Your task to perform on an android device: see sites visited before in the chrome app Image 0: 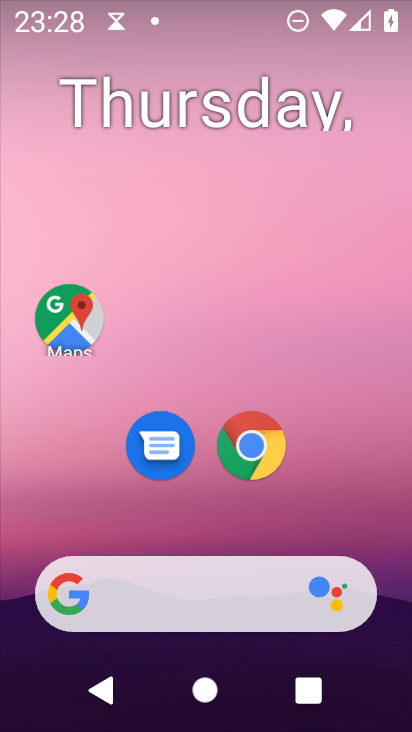
Step 0: click (245, 442)
Your task to perform on an android device: see sites visited before in the chrome app Image 1: 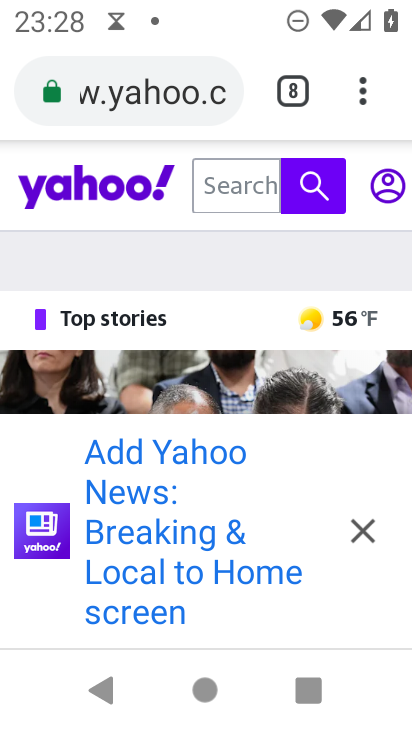
Step 1: click (364, 96)
Your task to perform on an android device: see sites visited before in the chrome app Image 2: 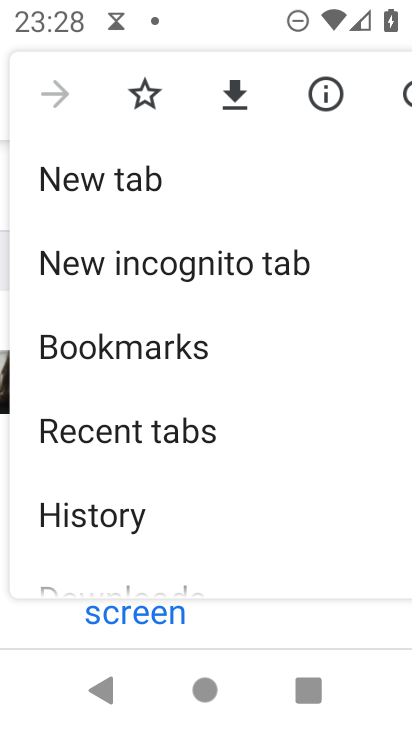
Step 2: drag from (148, 546) to (131, 139)
Your task to perform on an android device: see sites visited before in the chrome app Image 3: 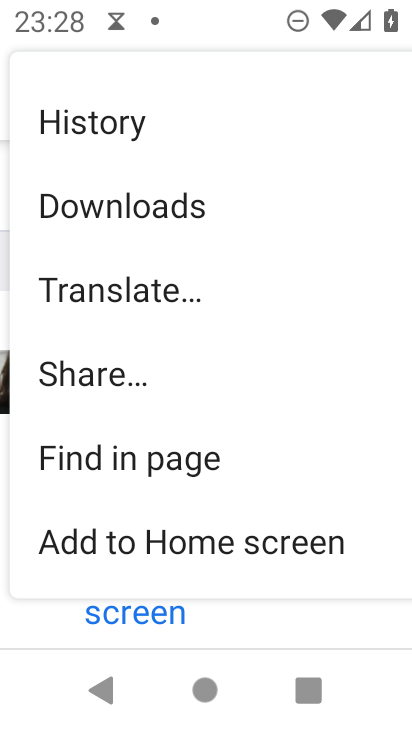
Step 3: drag from (160, 568) to (146, 94)
Your task to perform on an android device: see sites visited before in the chrome app Image 4: 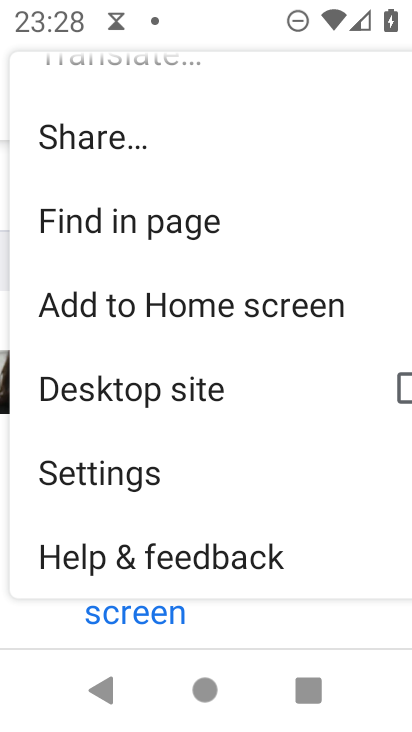
Step 4: drag from (260, 126) to (252, 597)
Your task to perform on an android device: see sites visited before in the chrome app Image 5: 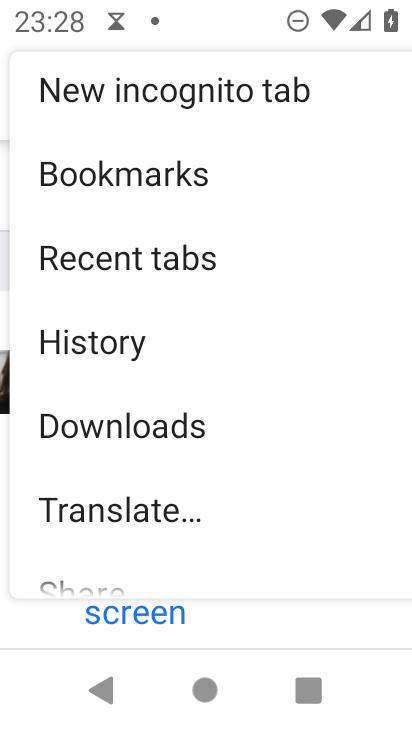
Step 5: click (65, 347)
Your task to perform on an android device: see sites visited before in the chrome app Image 6: 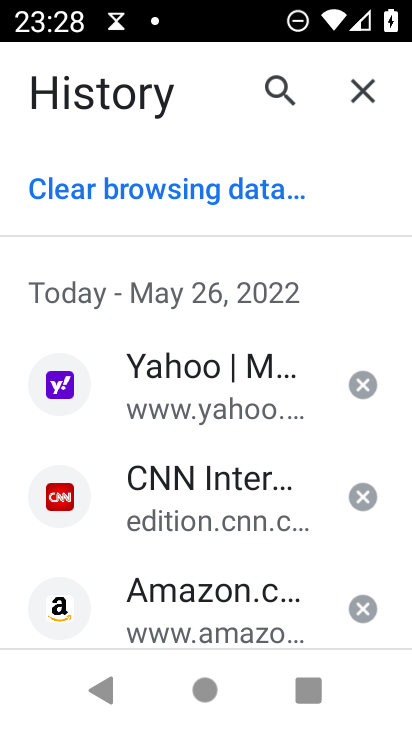
Step 6: task complete